Your task to perform on an android device: Open the calendar app, open the side menu, and click the "Day" option Image 0: 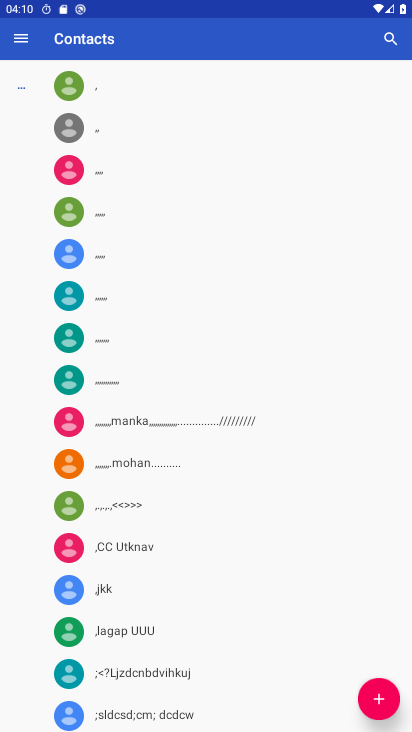
Step 0: drag from (204, 654) to (255, 232)
Your task to perform on an android device: Open the calendar app, open the side menu, and click the "Day" option Image 1: 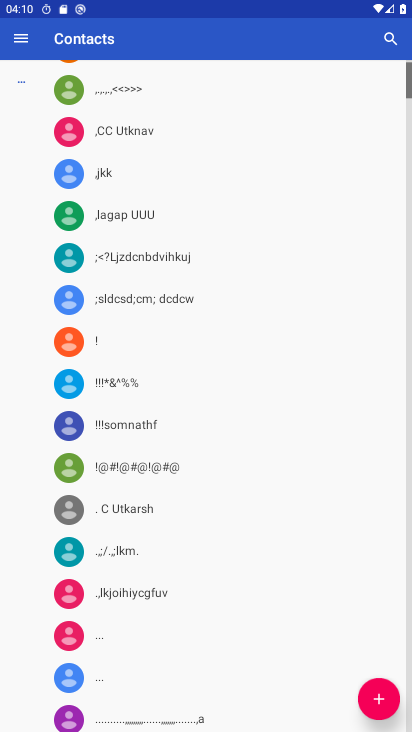
Step 1: press home button
Your task to perform on an android device: Open the calendar app, open the side menu, and click the "Day" option Image 2: 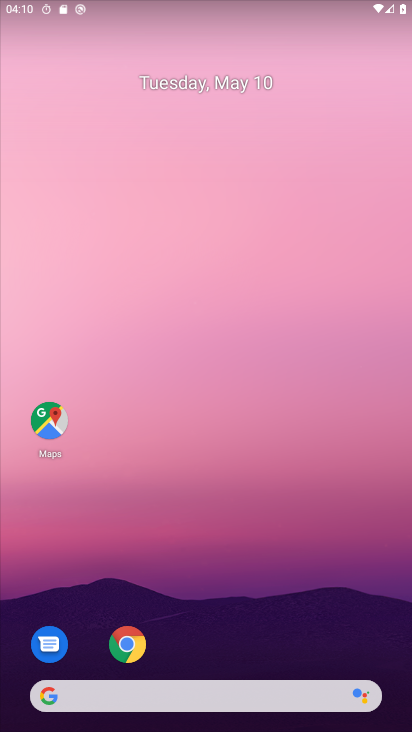
Step 2: drag from (222, 651) to (241, 166)
Your task to perform on an android device: Open the calendar app, open the side menu, and click the "Day" option Image 3: 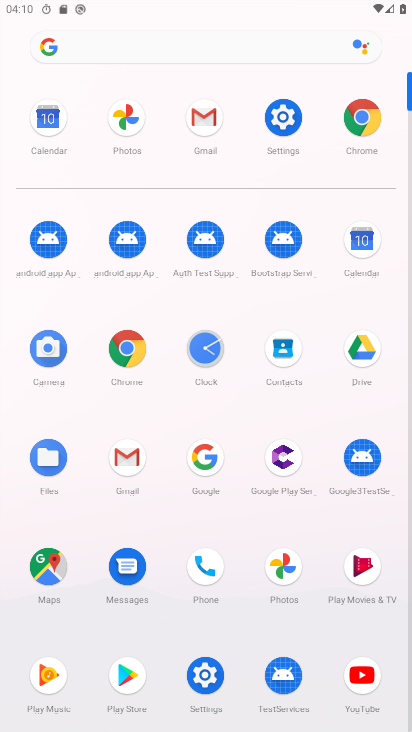
Step 3: click (122, 454)
Your task to perform on an android device: Open the calendar app, open the side menu, and click the "Day" option Image 4: 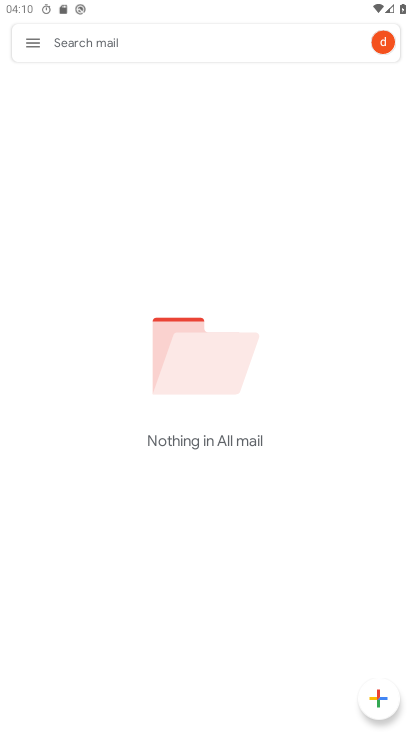
Step 4: press home button
Your task to perform on an android device: Open the calendar app, open the side menu, and click the "Day" option Image 5: 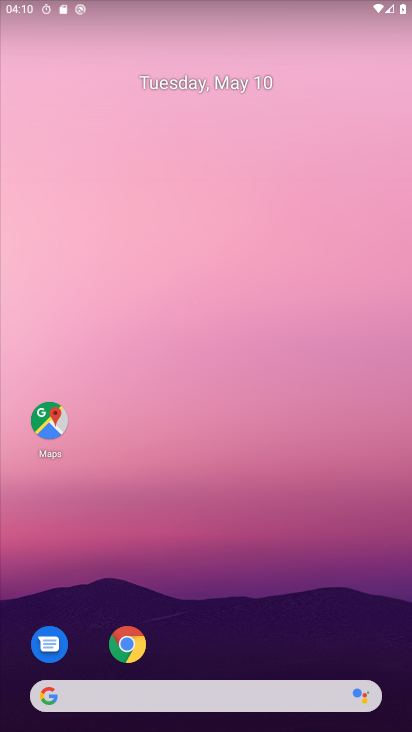
Step 5: drag from (207, 635) to (248, 176)
Your task to perform on an android device: Open the calendar app, open the side menu, and click the "Day" option Image 6: 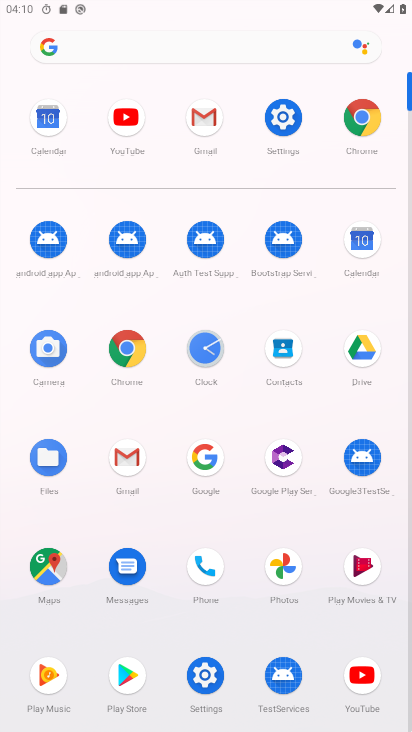
Step 6: click (361, 239)
Your task to perform on an android device: Open the calendar app, open the side menu, and click the "Day" option Image 7: 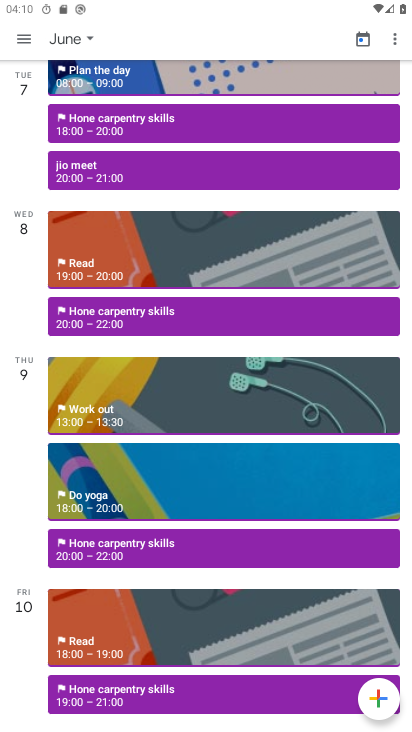
Step 7: click (23, 41)
Your task to perform on an android device: Open the calendar app, open the side menu, and click the "Day" option Image 8: 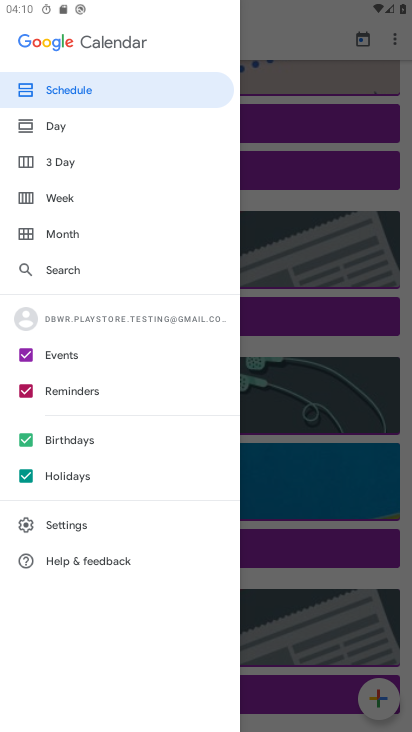
Step 8: click (69, 123)
Your task to perform on an android device: Open the calendar app, open the side menu, and click the "Day" option Image 9: 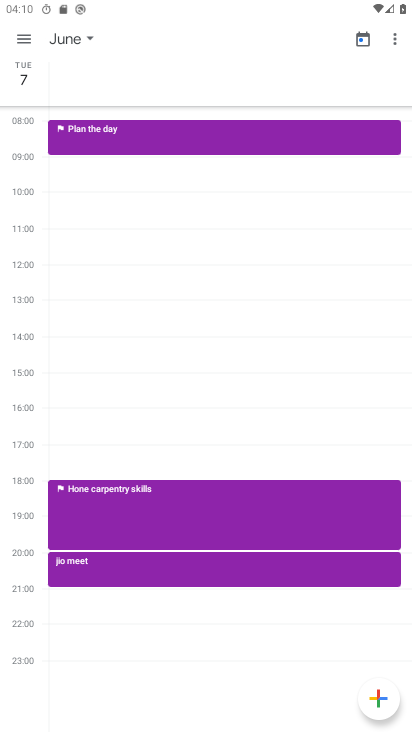
Step 9: click (31, 91)
Your task to perform on an android device: Open the calendar app, open the side menu, and click the "Day" option Image 10: 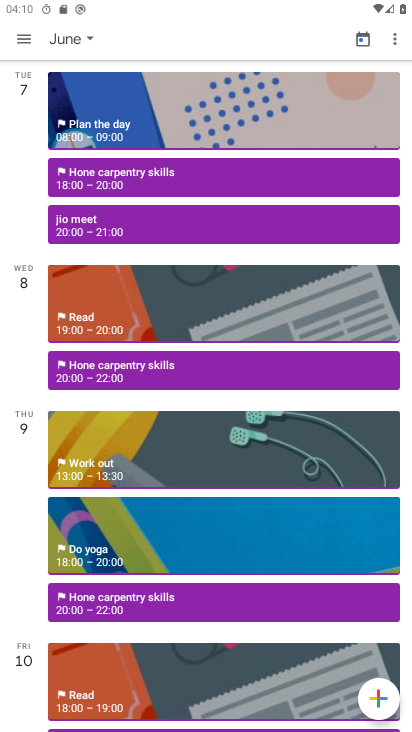
Step 10: task complete